Your task to perform on an android device: Open internet settings Image 0: 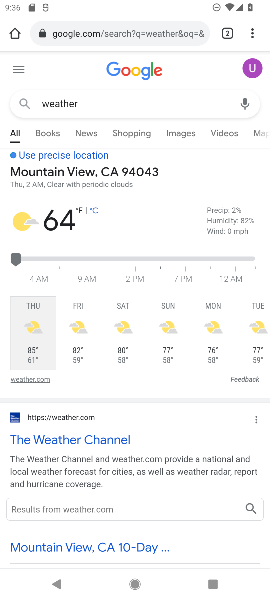
Step 0: drag from (118, 291) to (119, 207)
Your task to perform on an android device: Open internet settings Image 1: 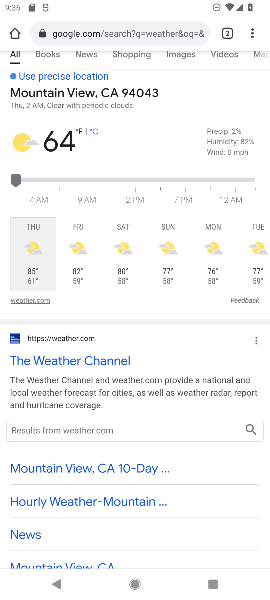
Step 1: drag from (145, 119) to (175, 458)
Your task to perform on an android device: Open internet settings Image 2: 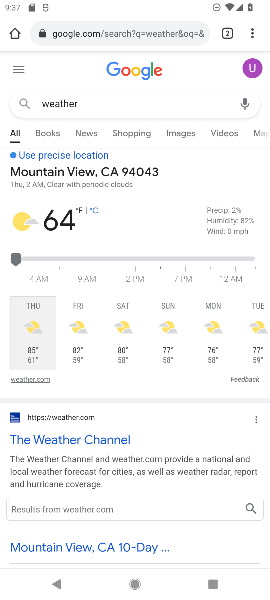
Step 2: press home button
Your task to perform on an android device: Open internet settings Image 3: 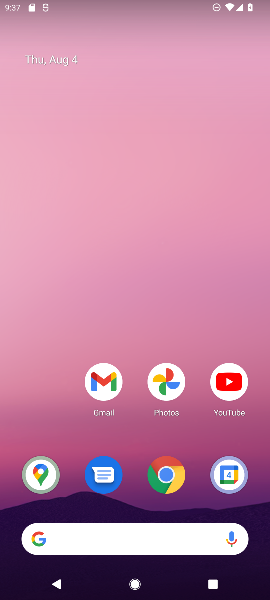
Step 3: drag from (112, 520) to (138, 223)
Your task to perform on an android device: Open internet settings Image 4: 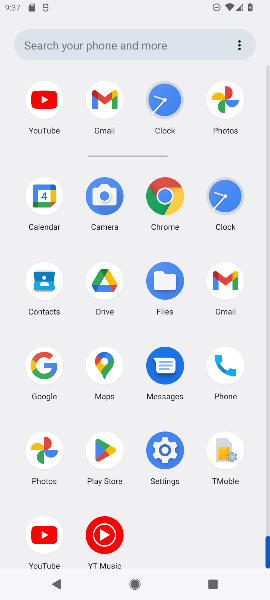
Step 4: click (161, 450)
Your task to perform on an android device: Open internet settings Image 5: 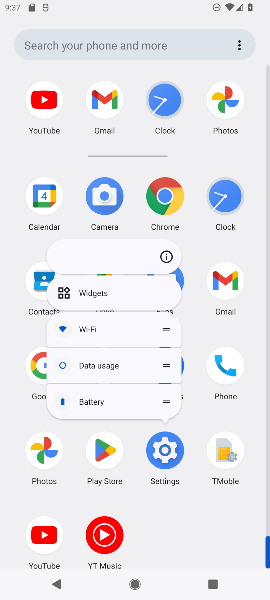
Step 5: click (155, 251)
Your task to perform on an android device: Open internet settings Image 6: 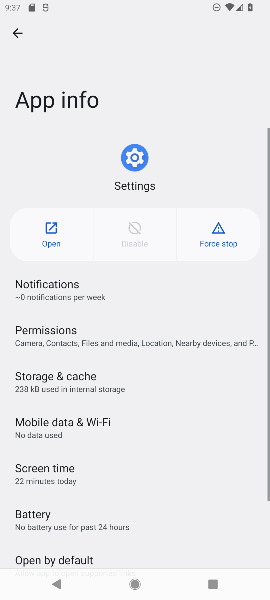
Step 6: click (44, 229)
Your task to perform on an android device: Open internet settings Image 7: 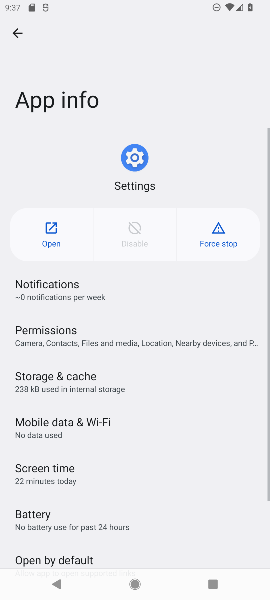
Step 7: click (44, 229)
Your task to perform on an android device: Open internet settings Image 8: 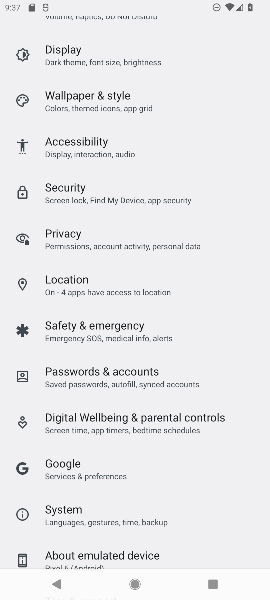
Step 8: drag from (136, 157) to (118, 598)
Your task to perform on an android device: Open internet settings Image 9: 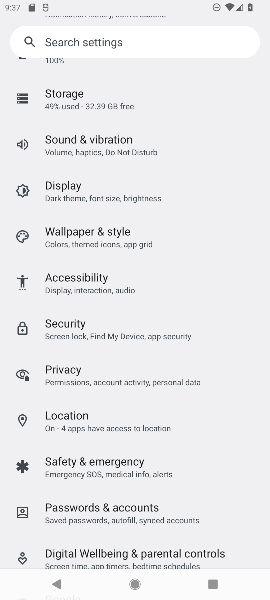
Step 9: drag from (138, 118) to (119, 451)
Your task to perform on an android device: Open internet settings Image 10: 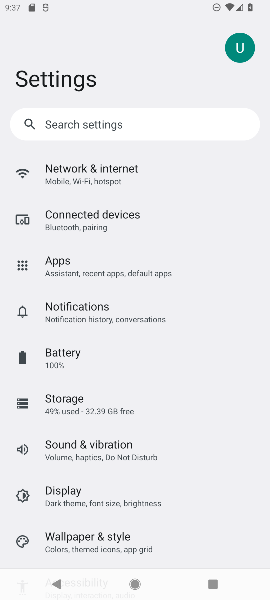
Step 10: click (109, 171)
Your task to perform on an android device: Open internet settings Image 11: 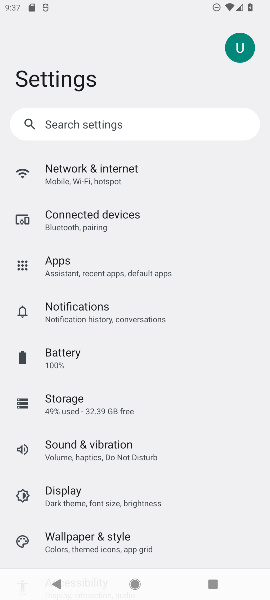
Step 11: click (109, 171)
Your task to perform on an android device: Open internet settings Image 12: 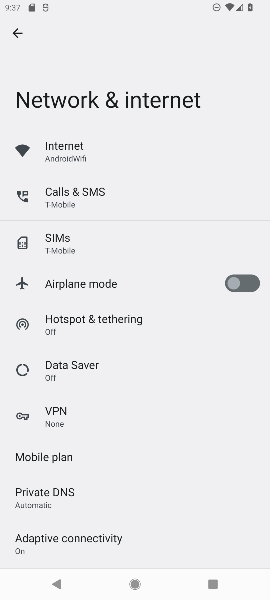
Step 12: click (72, 140)
Your task to perform on an android device: Open internet settings Image 13: 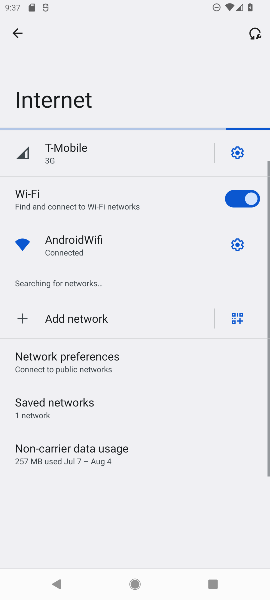
Step 13: task complete